Your task to perform on an android device: Go to network settings Image 0: 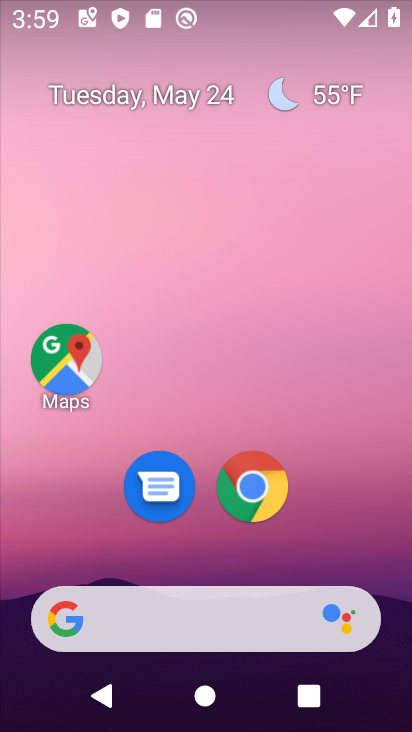
Step 0: drag from (271, 514) to (202, 127)
Your task to perform on an android device: Go to network settings Image 1: 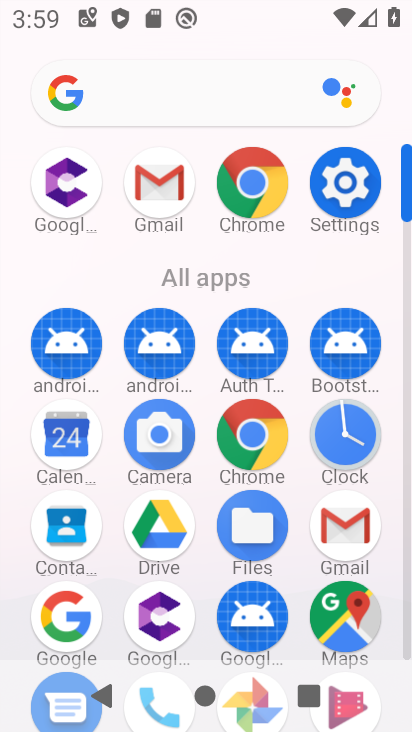
Step 1: click (322, 174)
Your task to perform on an android device: Go to network settings Image 2: 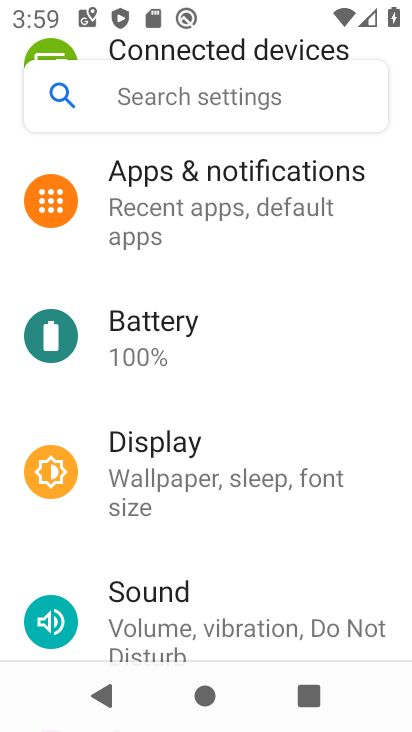
Step 2: drag from (286, 232) to (368, 554)
Your task to perform on an android device: Go to network settings Image 3: 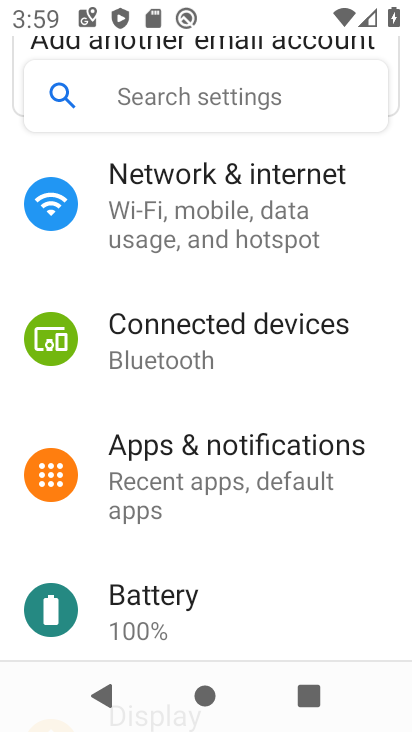
Step 3: click (207, 238)
Your task to perform on an android device: Go to network settings Image 4: 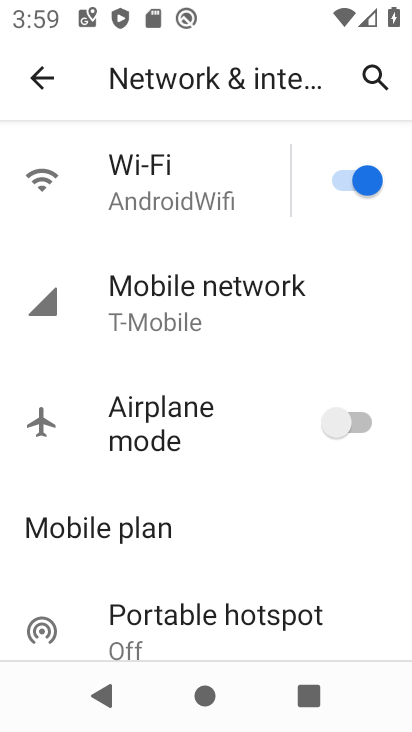
Step 4: task complete